Your task to perform on an android device: Go to privacy settings Image 0: 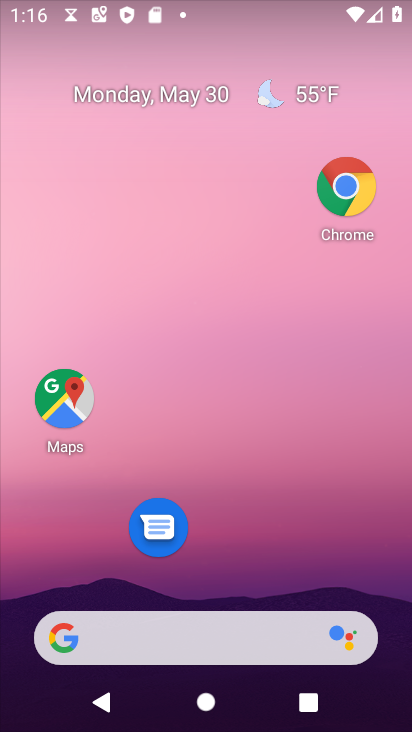
Step 0: drag from (219, 589) to (182, 107)
Your task to perform on an android device: Go to privacy settings Image 1: 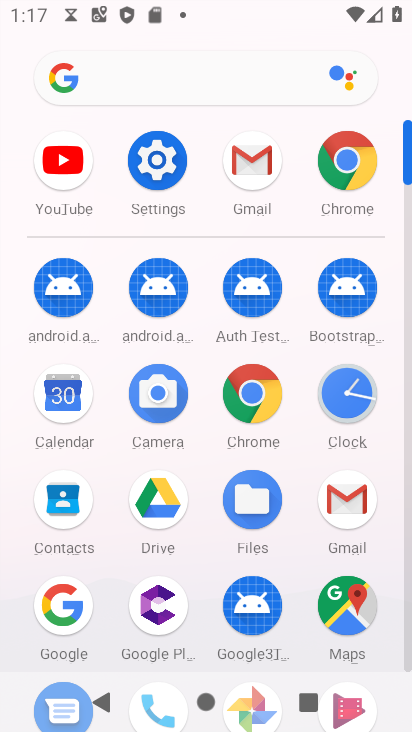
Step 1: click (149, 151)
Your task to perform on an android device: Go to privacy settings Image 2: 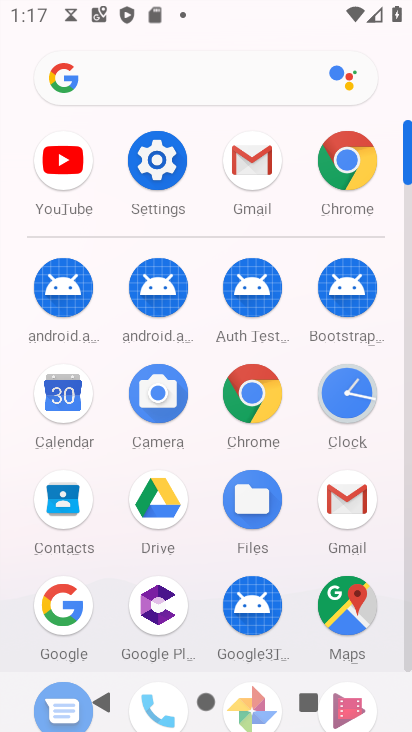
Step 2: click (149, 151)
Your task to perform on an android device: Go to privacy settings Image 3: 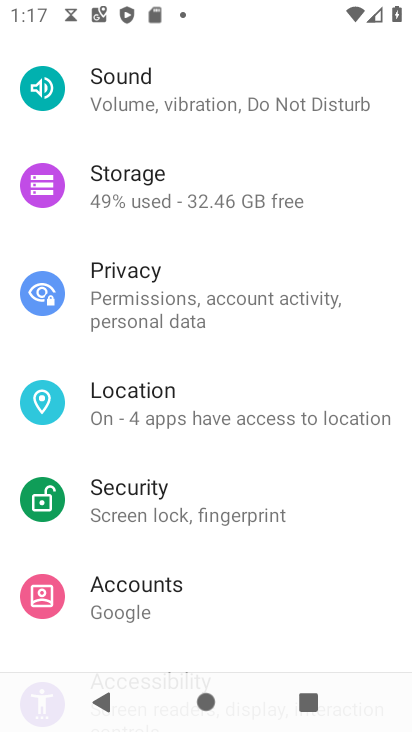
Step 3: click (193, 303)
Your task to perform on an android device: Go to privacy settings Image 4: 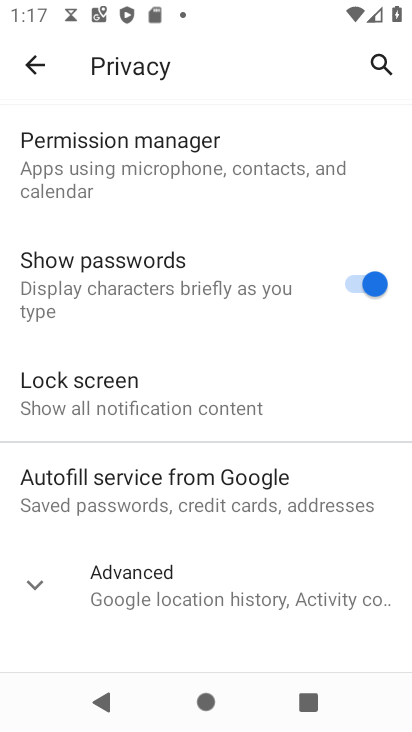
Step 4: task complete